Your task to perform on an android device: check the backup settings in the google photos Image 0: 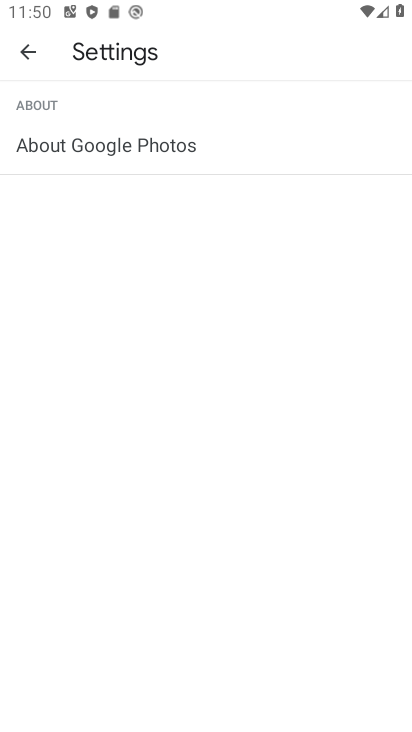
Step 0: press home button
Your task to perform on an android device: check the backup settings in the google photos Image 1: 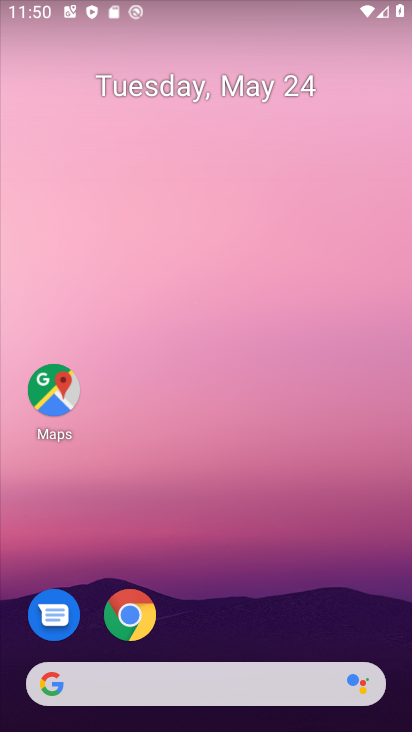
Step 1: drag from (253, 624) to (217, 137)
Your task to perform on an android device: check the backup settings in the google photos Image 2: 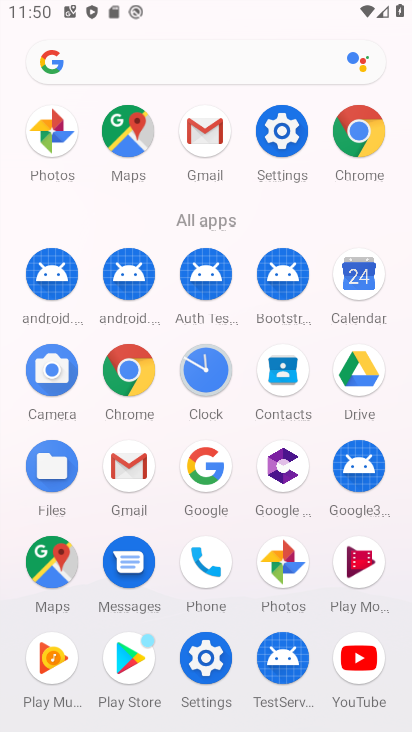
Step 2: click (53, 130)
Your task to perform on an android device: check the backup settings in the google photos Image 3: 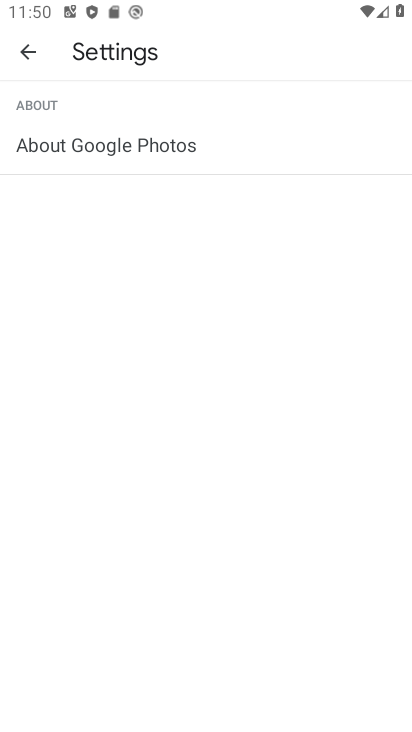
Step 3: press back button
Your task to perform on an android device: check the backup settings in the google photos Image 4: 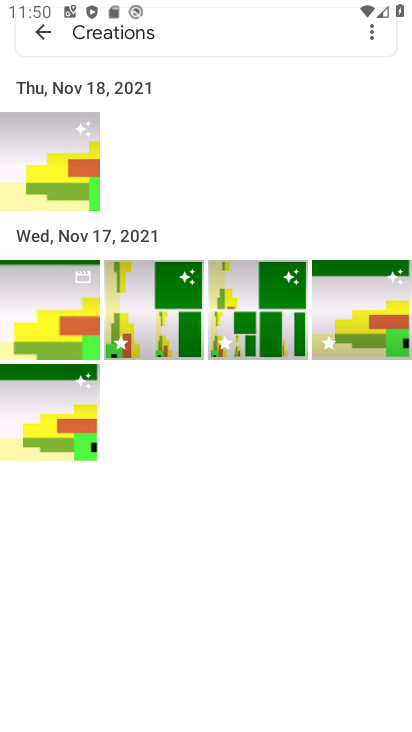
Step 4: press back button
Your task to perform on an android device: check the backup settings in the google photos Image 5: 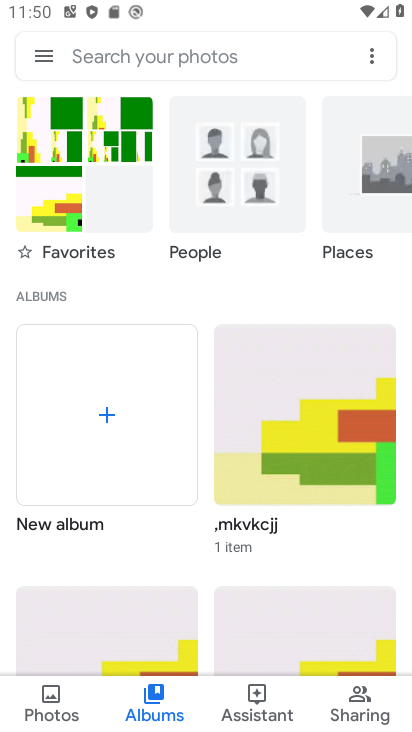
Step 5: click (47, 55)
Your task to perform on an android device: check the backup settings in the google photos Image 6: 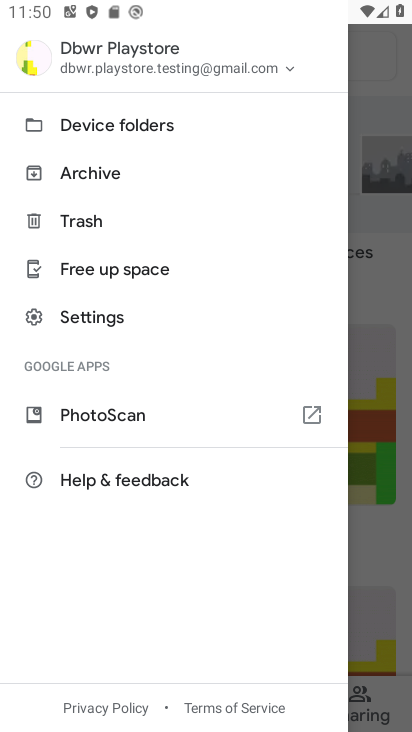
Step 6: click (117, 322)
Your task to perform on an android device: check the backup settings in the google photos Image 7: 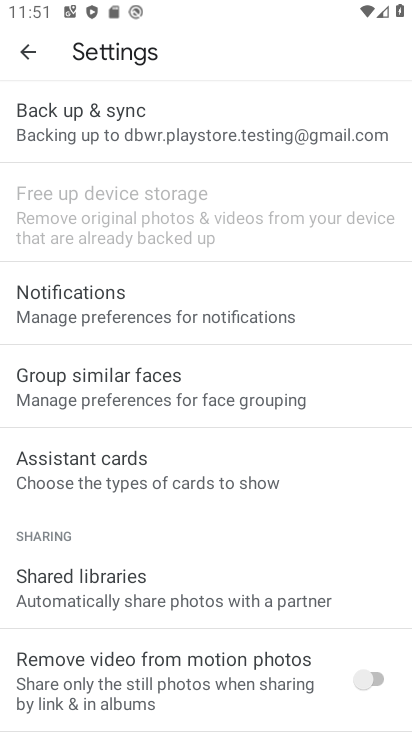
Step 7: click (158, 131)
Your task to perform on an android device: check the backup settings in the google photos Image 8: 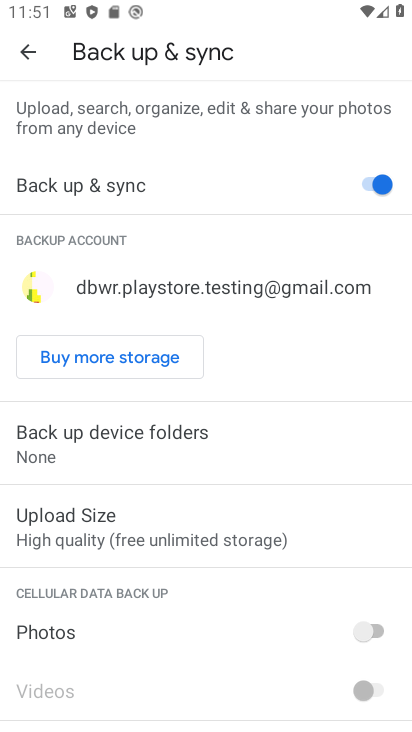
Step 8: task complete